Your task to perform on an android device: Open Wikipedia Image 0: 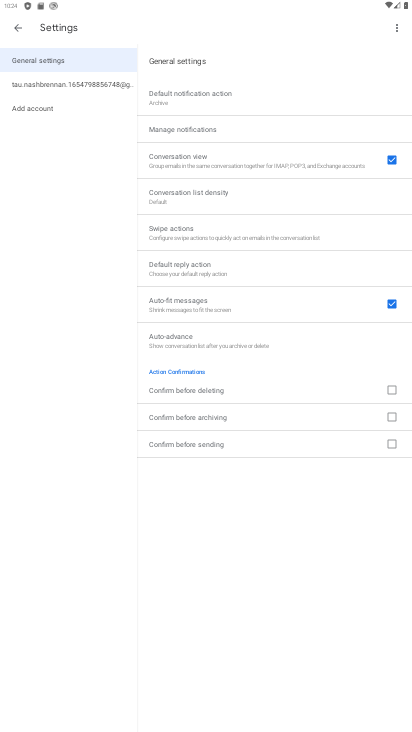
Step 0: press home button
Your task to perform on an android device: Open Wikipedia Image 1: 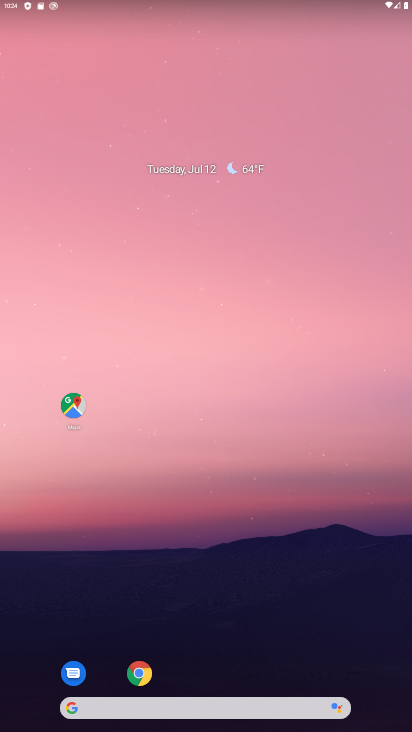
Step 1: click (144, 671)
Your task to perform on an android device: Open Wikipedia Image 2: 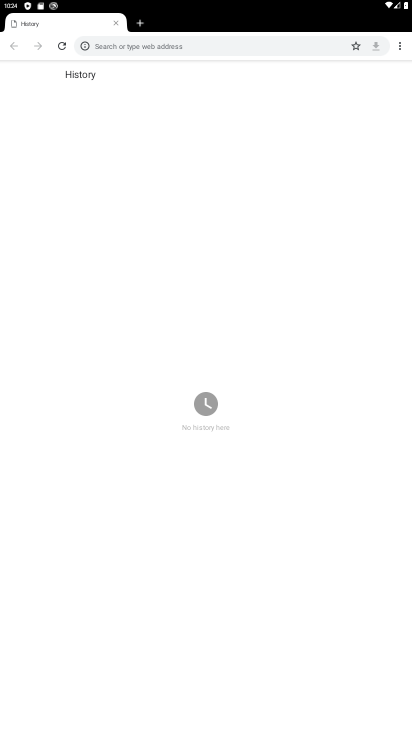
Step 2: click (160, 45)
Your task to perform on an android device: Open Wikipedia Image 3: 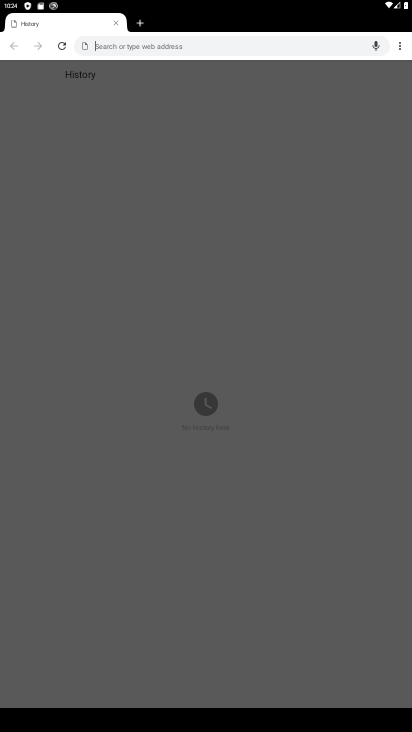
Step 3: type "wikipedia"
Your task to perform on an android device: Open Wikipedia Image 4: 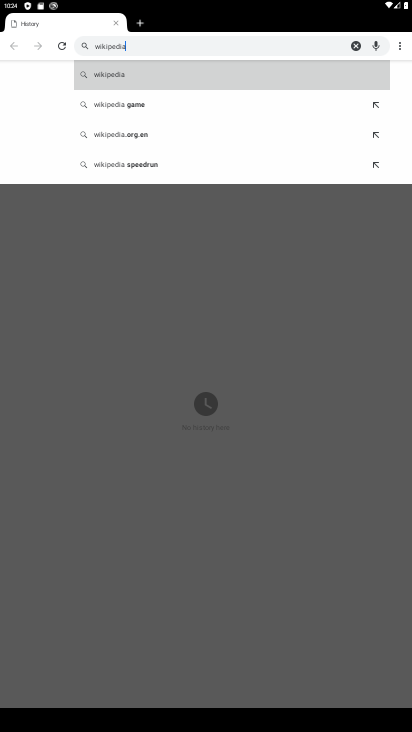
Step 4: click (126, 72)
Your task to perform on an android device: Open Wikipedia Image 5: 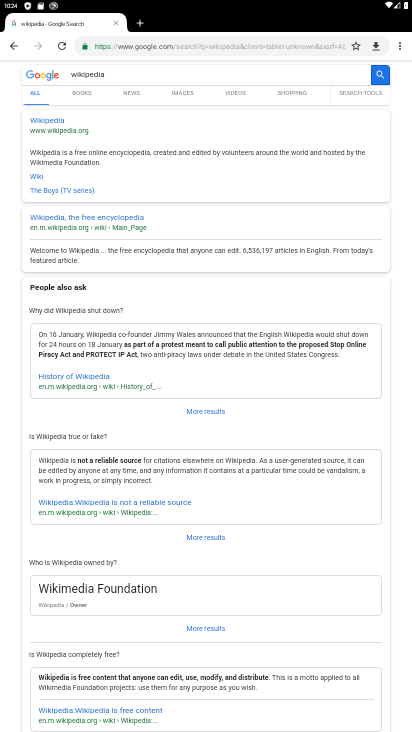
Step 5: click (52, 117)
Your task to perform on an android device: Open Wikipedia Image 6: 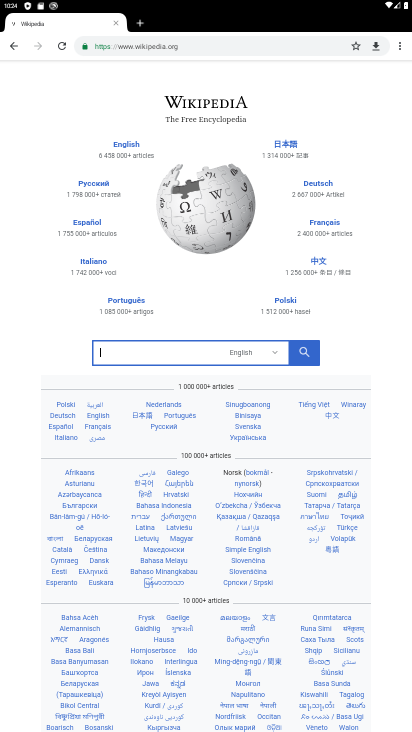
Step 6: task complete